Your task to perform on an android device: toggle pop-ups in chrome Image 0: 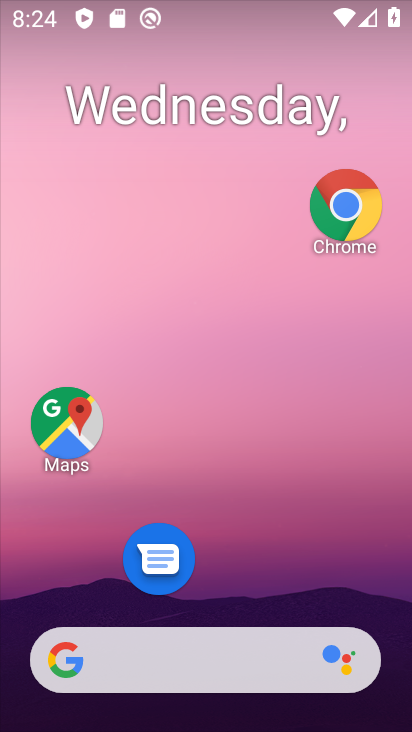
Step 0: click (349, 206)
Your task to perform on an android device: toggle pop-ups in chrome Image 1: 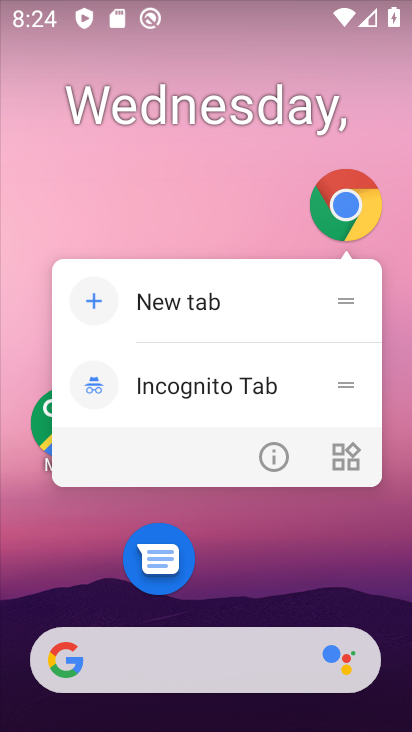
Step 1: click (265, 451)
Your task to perform on an android device: toggle pop-ups in chrome Image 2: 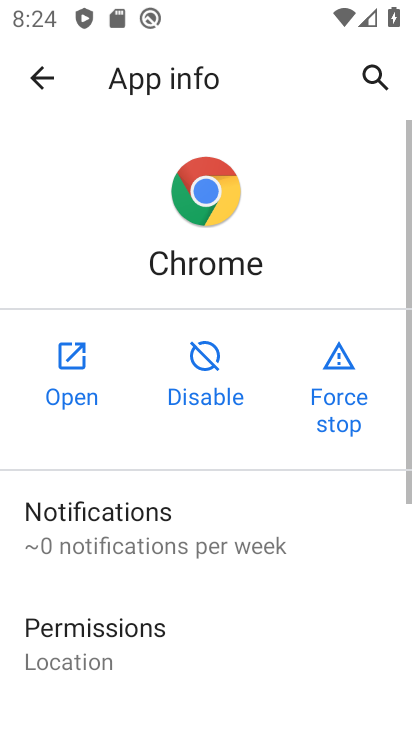
Step 2: click (81, 361)
Your task to perform on an android device: toggle pop-ups in chrome Image 3: 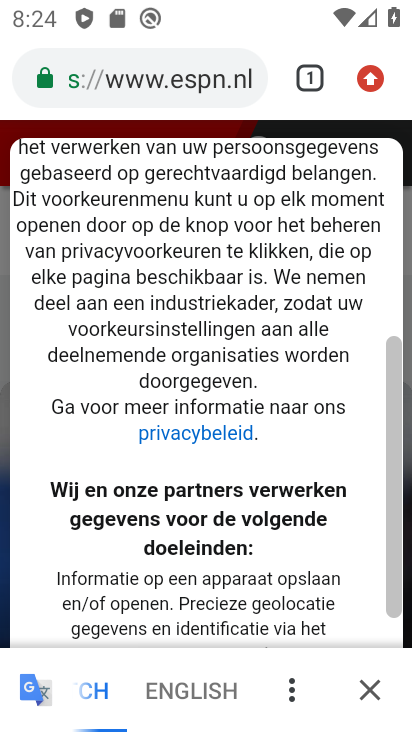
Step 3: drag from (365, 83) to (159, 612)
Your task to perform on an android device: toggle pop-ups in chrome Image 4: 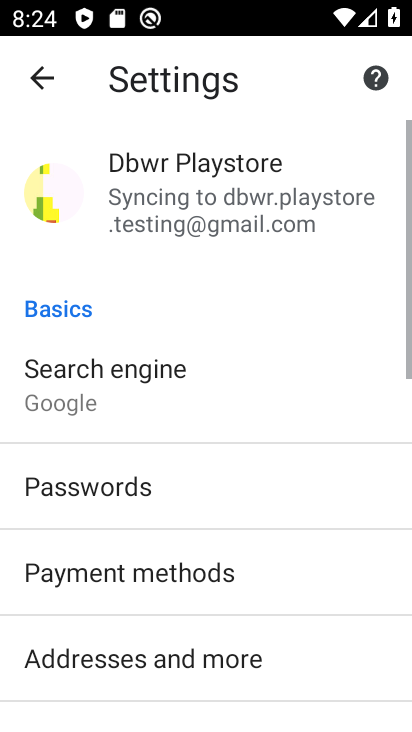
Step 4: drag from (159, 607) to (211, 164)
Your task to perform on an android device: toggle pop-ups in chrome Image 5: 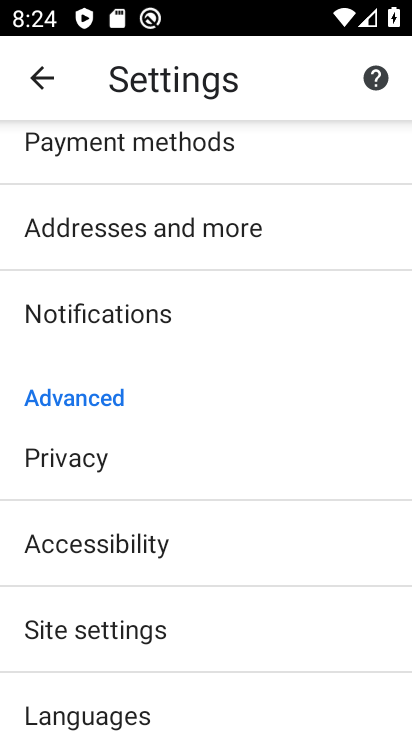
Step 5: drag from (180, 640) to (258, 282)
Your task to perform on an android device: toggle pop-ups in chrome Image 6: 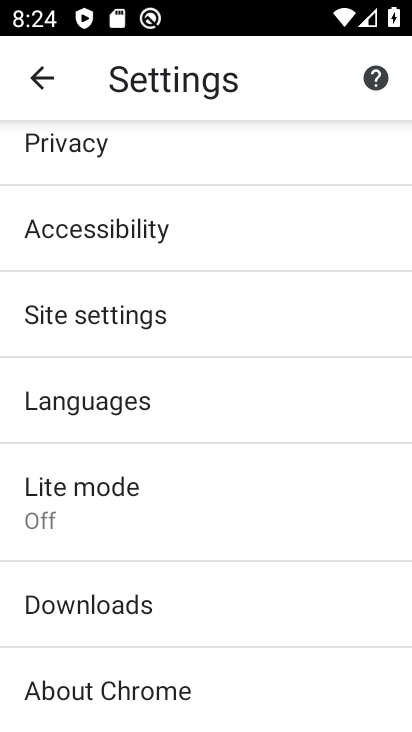
Step 6: click (149, 312)
Your task to perform on an android device: toggle pop-ups in chrome Image 7: 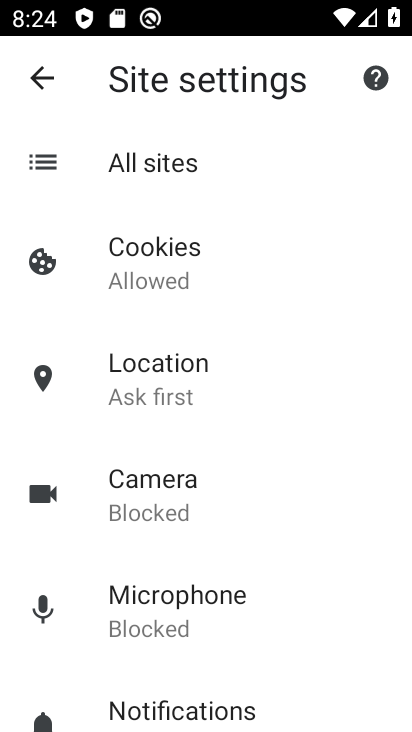
Step 7: drag from (213, 635) to (303, 229)
Your task to perform on an android device: toggle pop-ups in chrome Image 8: 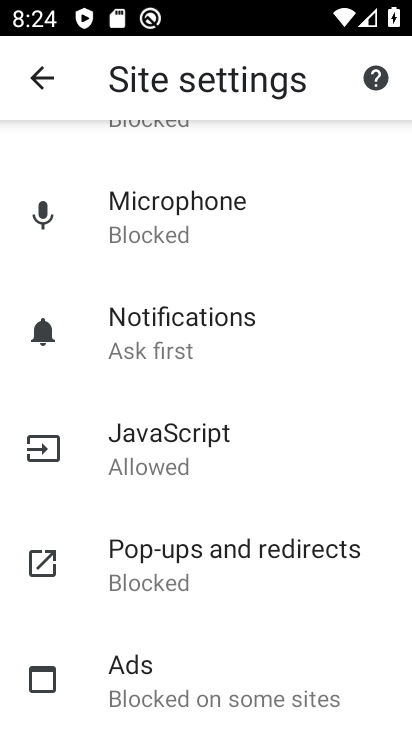
Step 8: click (216, 582)
Your task to perform on an android device: toggle pop-ups in chrome Image 9: 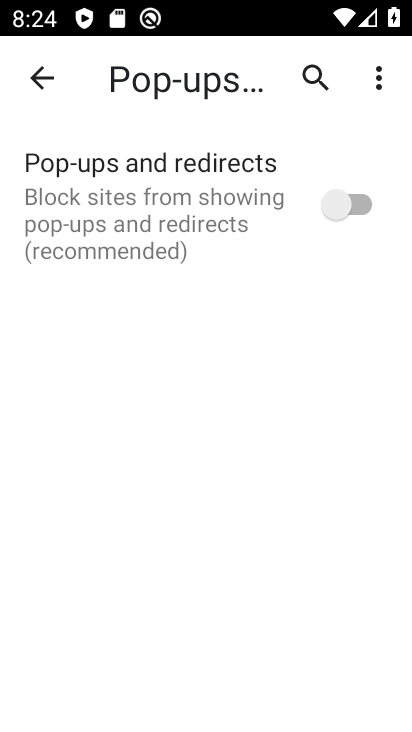
Step 9: drag from (242, 548) to (285, 300)
Your task to perform on an android device: toggle pop-ups in chrome Image 10: 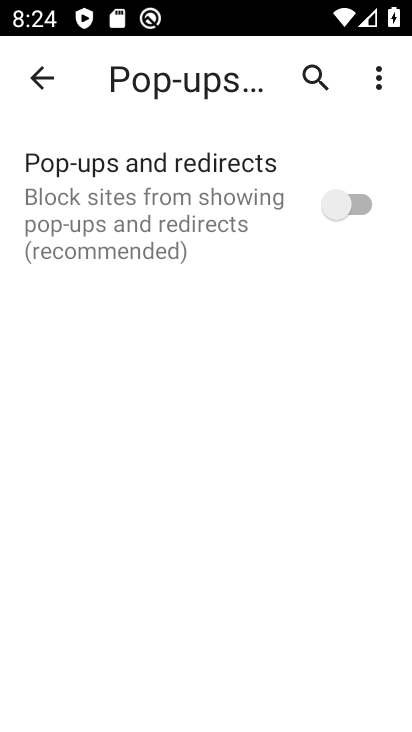
Step 10: click (326, 164)
Your task to perform on an android device: toggle pop-ups in chrome Image 11: 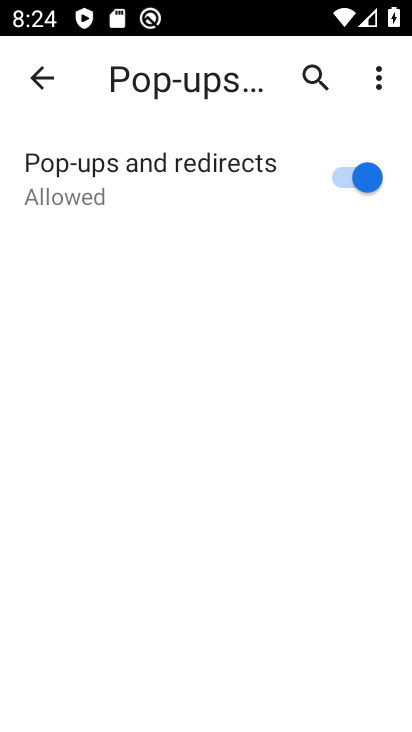
Step 11: task complete